Your task to perform on an android device: open a bookmark in the chrome app Image 0: 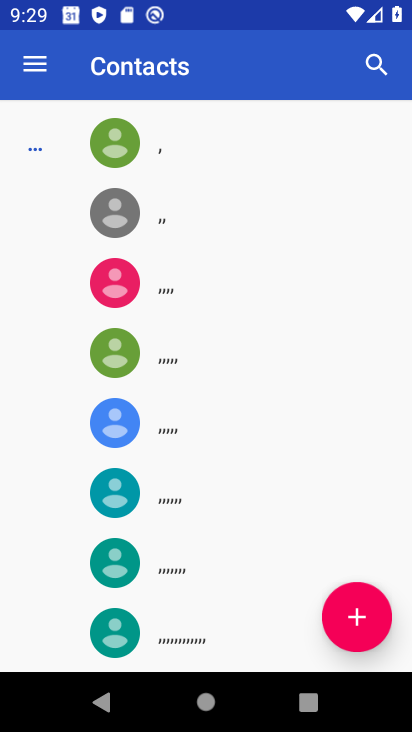
Step 0: press home button
Your task to perform on an android device: open a bookmark in the chrome app Image 1: 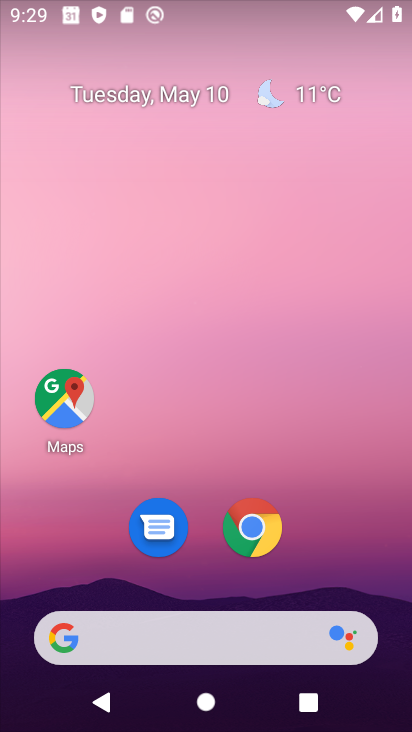
Step 1: click (252, 515)
Your task to perform on an android device: open a bookmark in the chrome app Image 2: 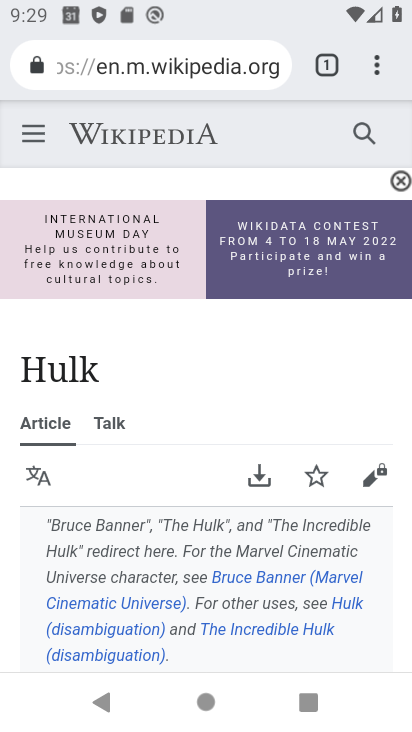
Step 2: click (371, 79)
Your task to perform on an android device: open a bookmark in the chrome app Image 3: 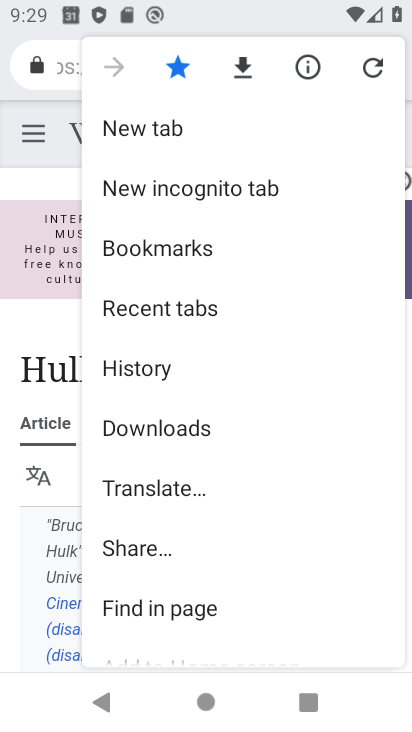
Step 3: click (144, 240)
Your task to perform on an android device: open a bookmark in the chrome app Image 4: 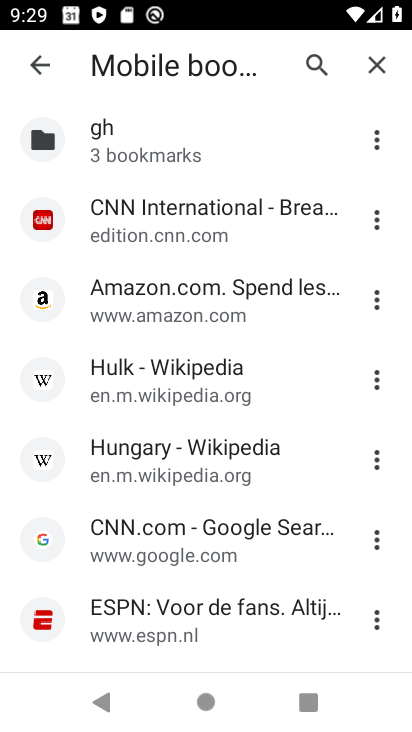
Step 4: click (198, 439)
Your task to perform on an android device: open a bookmark in the chrome app Image 5: 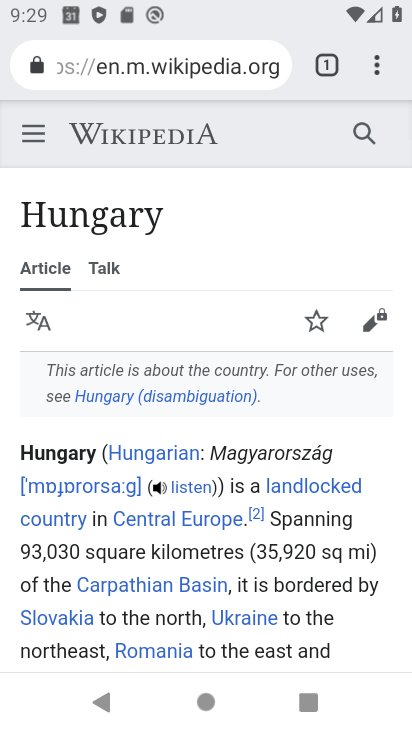
Step 5: task complete